Your task to perform on an android device: choose inbox layout in the gmail app Image 0: 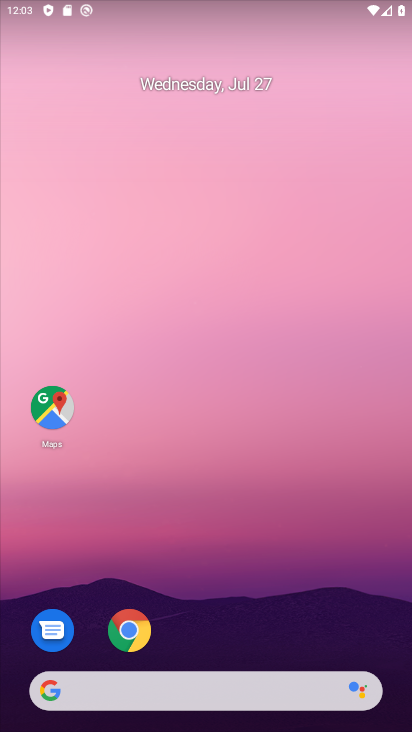
Step 0: drag from (278, 636) to (234, 156)
Your task to perform on an android device: choose inbox layout in the gmail app Image 1: 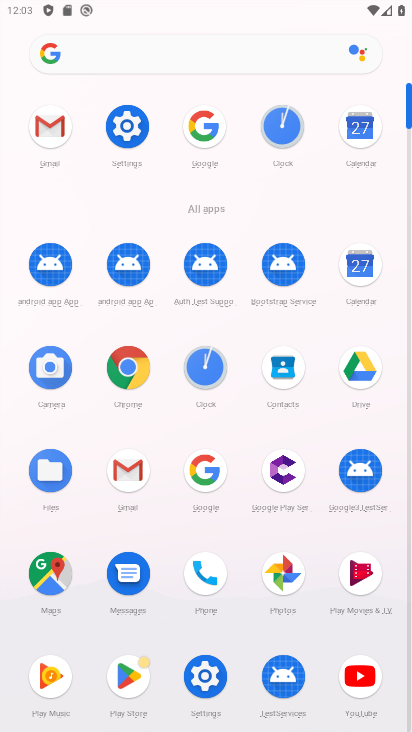
Step 1: click (129, 473)
Your task to perform on an android device: choose inbox layout in the gmail app Image 2: 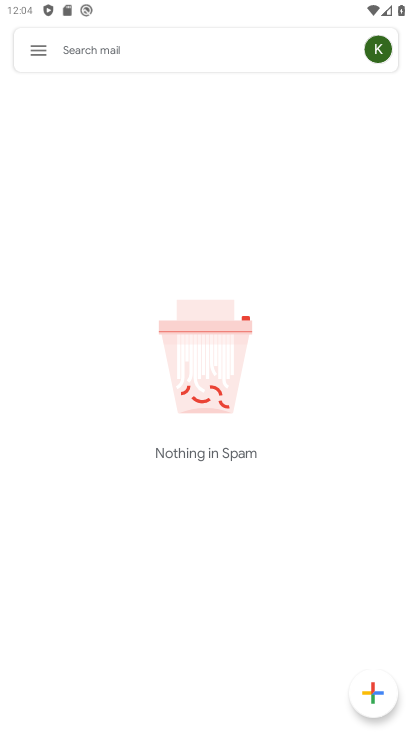
Step 2: click (46, 42)
Your task to perform on an android device: choose inbox layout in the gmail app Image 3: 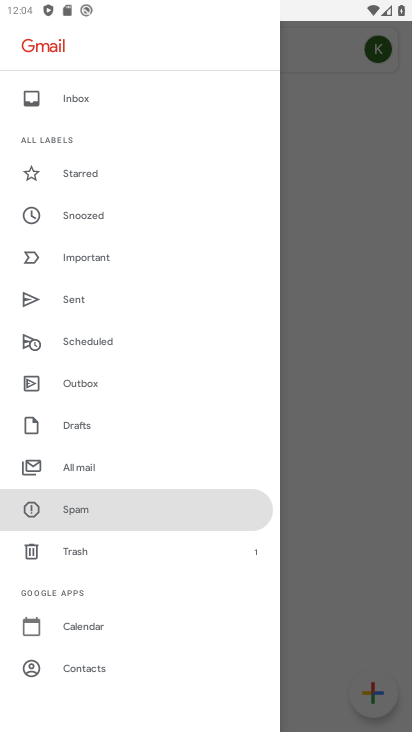
Step 3: drag from (109, 685) to (89, 449)
Your task to perform on an android device: choose inbox layout in the gmail app Image 4: 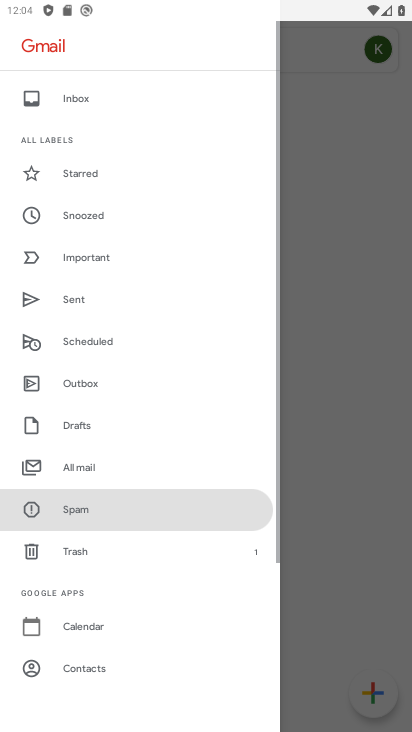
Step 4: drag from (84, 608) to (132, 278)
Your task to perform on an android device: choose inbox layout in the gmail app Image 5: 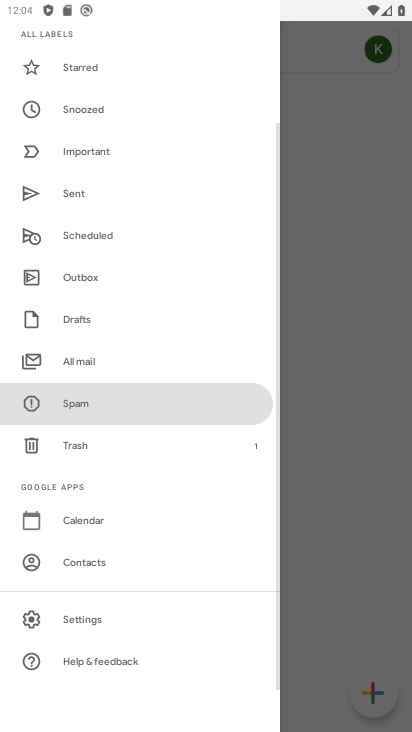
Step 5: click (96, 612)
Your task to perform on an android device: choose inbox layout in the gmail app Image 6: 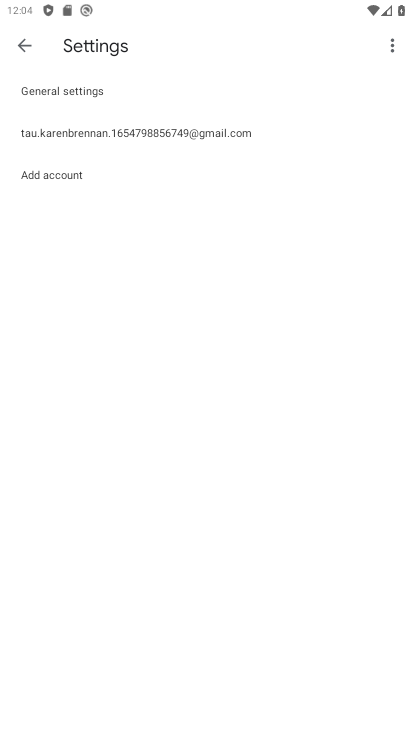
Step 6: click (151, 134)
Your task to perform on an android device: choose inbox layout in the gmail app Image 7: 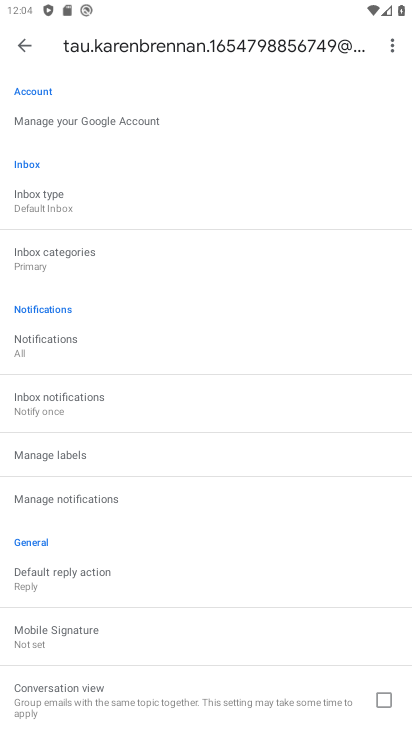
Step 7: click (51, 189)
Your task to perform on an android device: choose inbox layout in the gmail app Image 8: 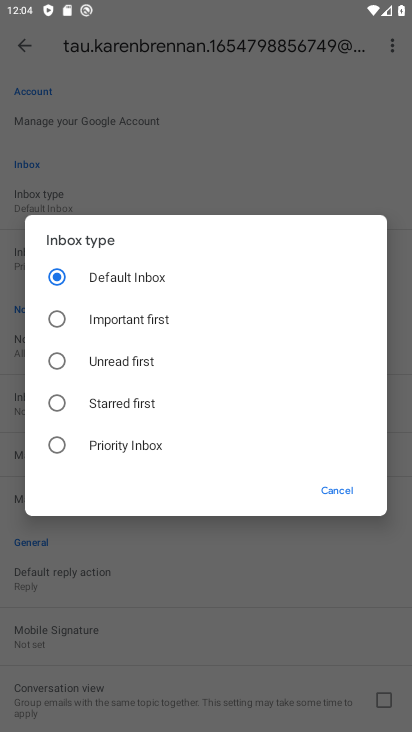
Step 8: click (84, 322)
Your task to perform on an android device: choose inbox layout in the gmail app Image 9: 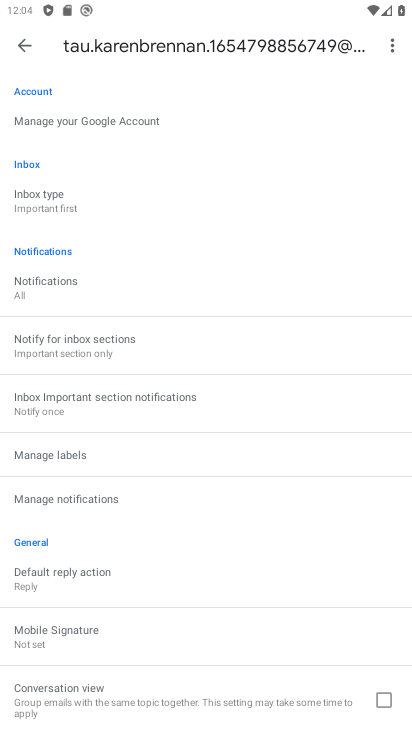
Step 9: task complete